Your task to perform on an android device: turn off javascript in the chrome app Image 0: 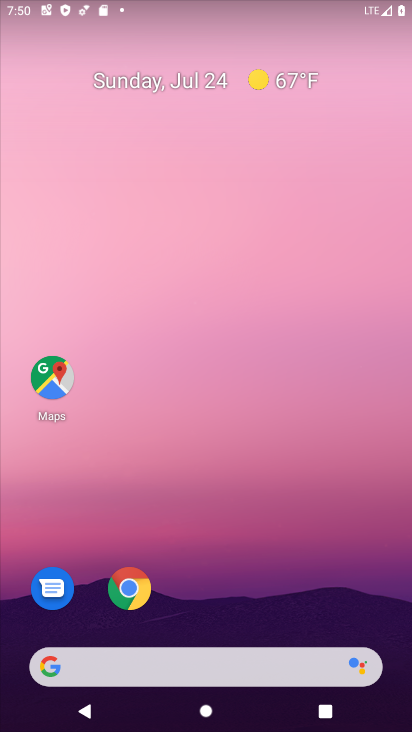
Step 0: drag from (210, 582) to (201, 186)
Your task to perform on an android device: turn off javascript in the chrome app Image 1: 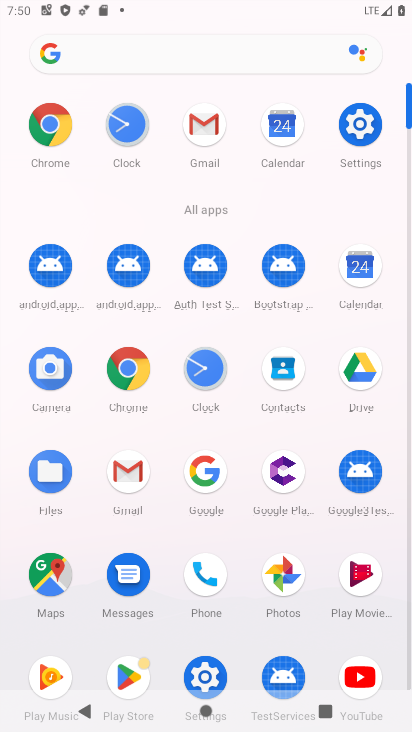
Step 1: click (130, 363)
Your task to perform on an android device: turn off javascript in the chrome app Image 2: 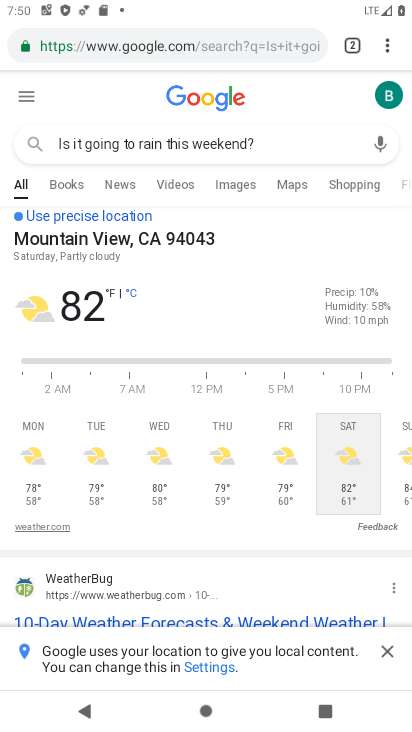
Step 2: click (389, 41)
Your task to perform on an android device: turn off javascript in the chrome app Image 3: 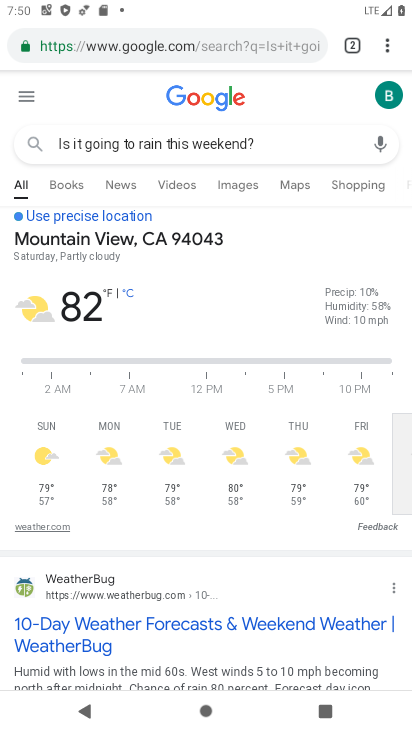
Step 3: click (391, 35)
Your task to perform on an android device: turn off javascript in the chrome app Image 4: 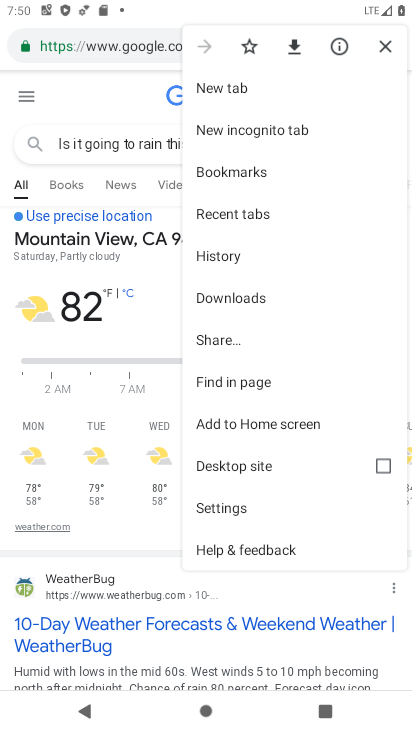
Step 4: click (224, 501)
Your task to perform on an android device: turn off javascript in the chrome app Image 5: 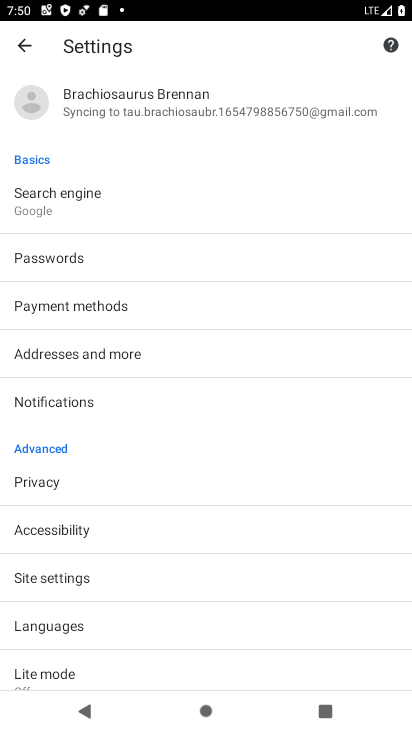
Step 5: click (103, 572)
Your task to perform on an android device: turn off javascript in the chrome app Image 6: 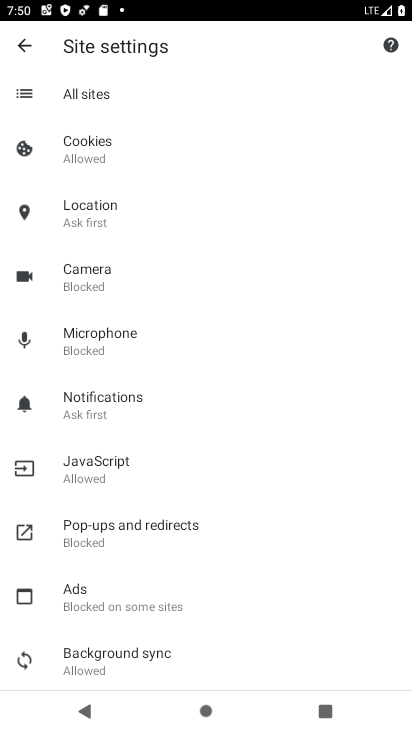
Step 6: click (115, 452)
Your task to perform on an android device: turn off javascript in the chrome app Image 7: 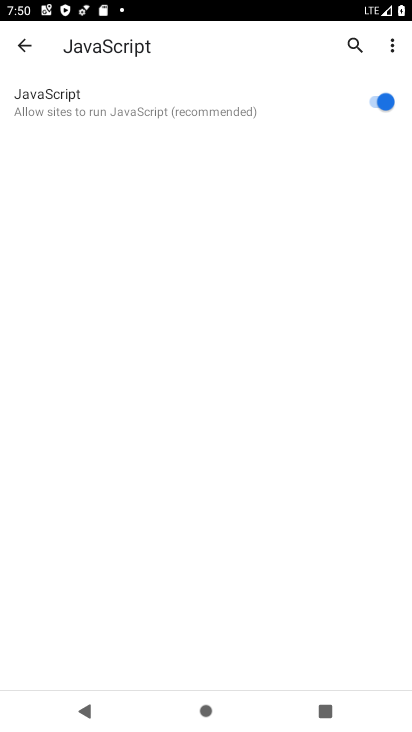
Step 7: click (374, 100)
Your task to perform on an android device: turn off javascript in the chrome app Image 8: 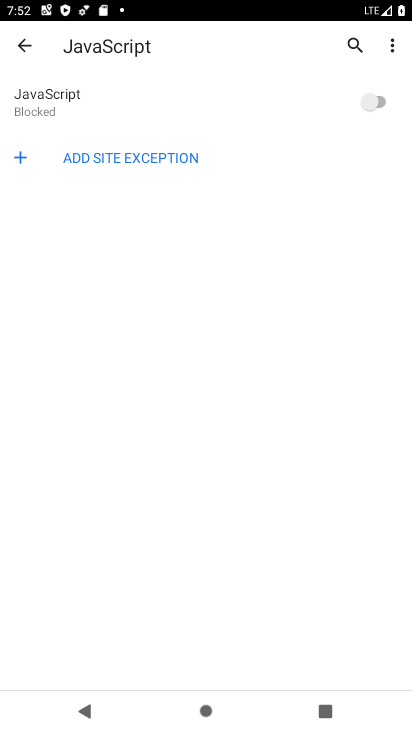
Step 8: task complete